Your task to perform on an android device: toggle translation in the chrome app Image 0: 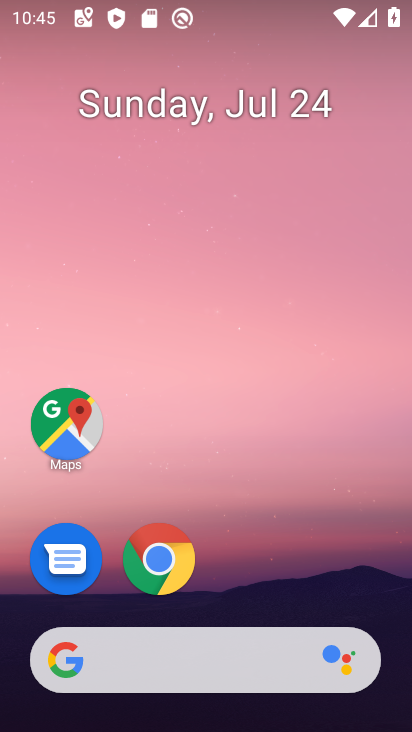
Step 0: click (175, 557)
Your task to perform on an android device: toggle translation in the chrome app Image 1: 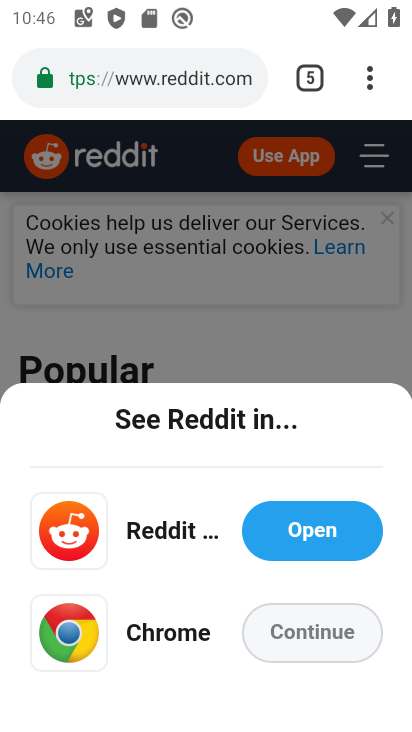
Step 1: drag from (366, 78) to (102, 607)
Your task to perform on an android device: toggle translation in the chrome app Image 2: 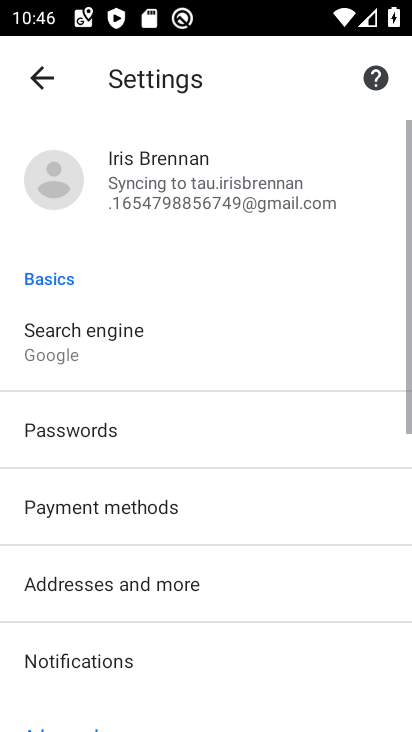
Step 2: drag from (112, 607) to (225, 48)
Your task to perform on an android device: toggle translation in the chrome app Image 3: 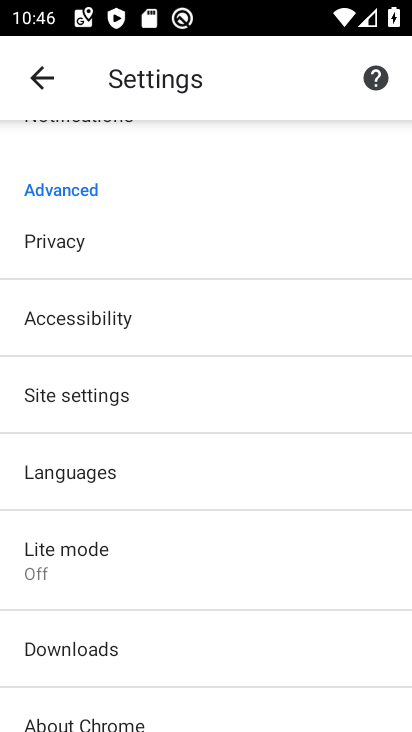
Step 3: click (51, 449)
Your task to perform on an android device: toggle translation in the chrome app Image 4: 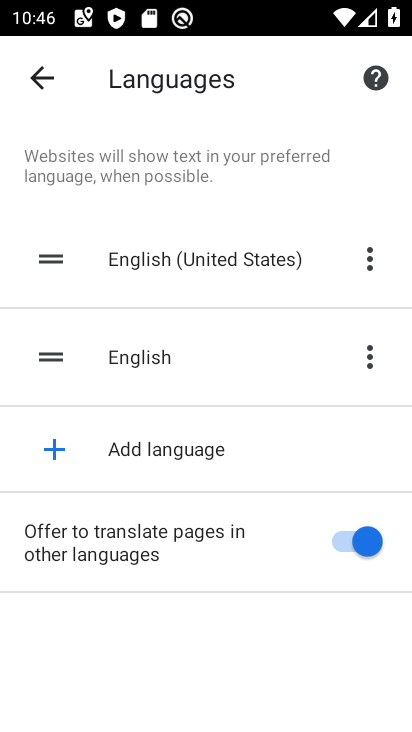
Step 4: click (371, 546)
Your task to perform on an android device: toggle translation in the chrome app Image 5: 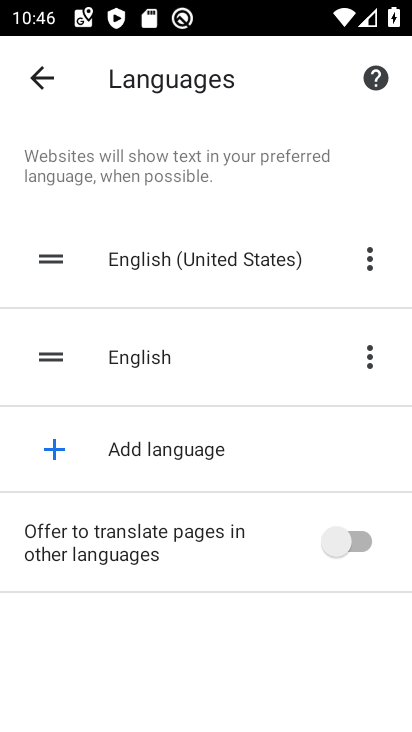
Step 5: task complete